Your task to perform on an android device: Go to Maps Image 0: 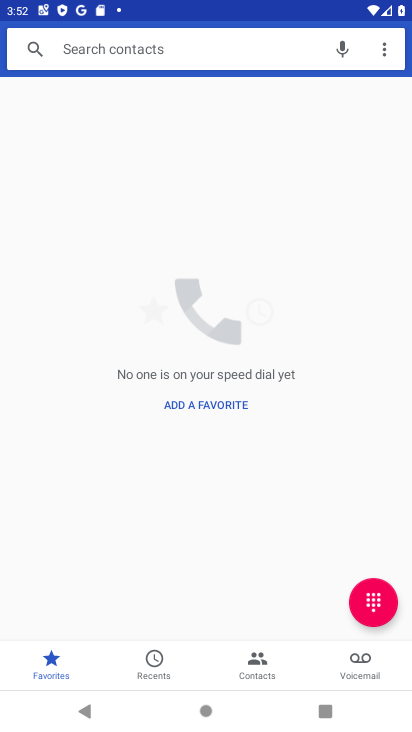
Step 0: drag from (229, 722) to (234, 335)
Your task to perform on an android device: Go to Maps Image 1: 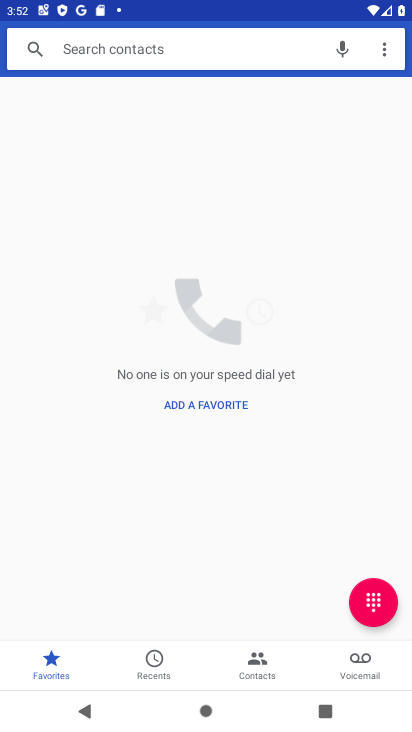
Step 1: press home button
Your task to perform on an android device: Go to Maps Image 2: 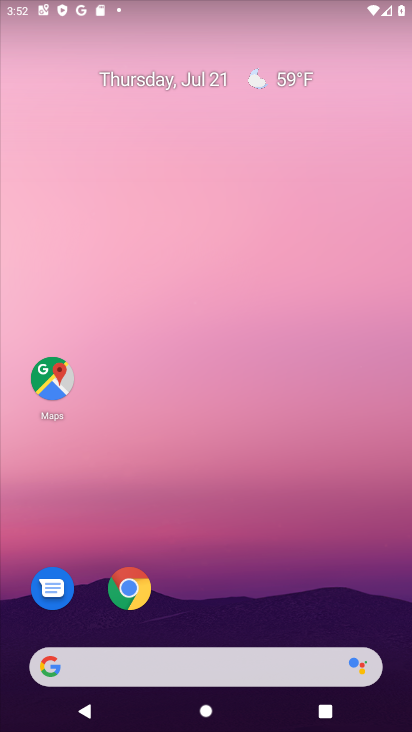
Step 2: drag from (243, 722) to (222, 306)
Your task to perform on an android device: Go to Maps Image 3: 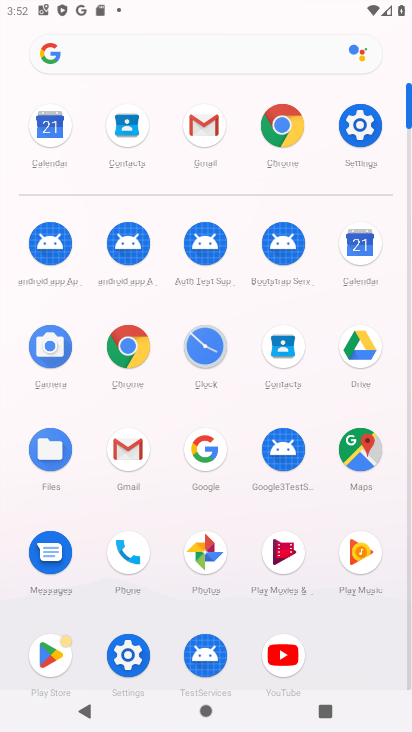
Step 3: click (361, 440)
Your task to perform on an android device: Go to Maps Image 4: 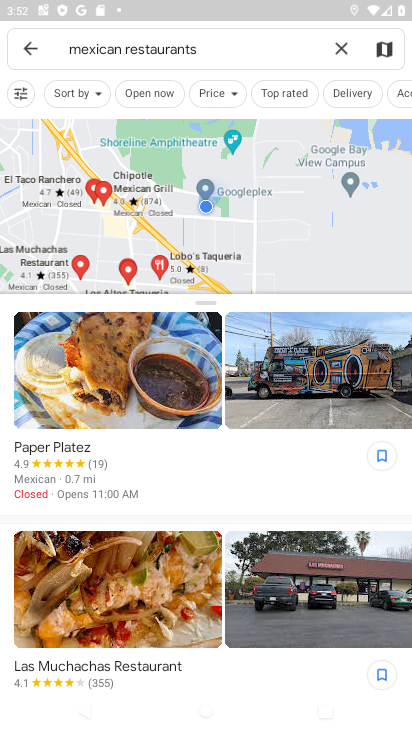
Step 4: task complete